Your task to perform on an android device: refresh tabs in the chrome app Image 0: 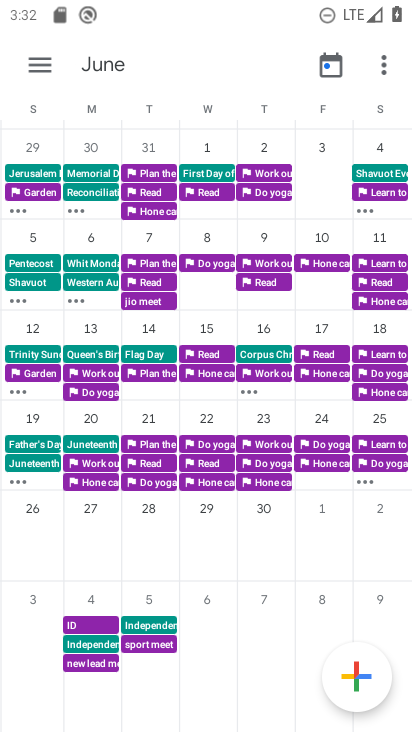
Step 0: press home button
Your task to perform on an android device: refresh tabs in the chrome app Image 1: 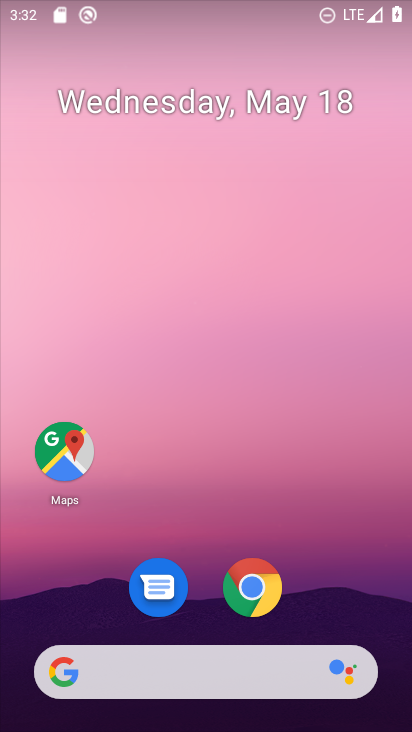
Step 1: click (253, 577)
Your task to perform on an android device: refresh tabs in the chrome app Image 2: 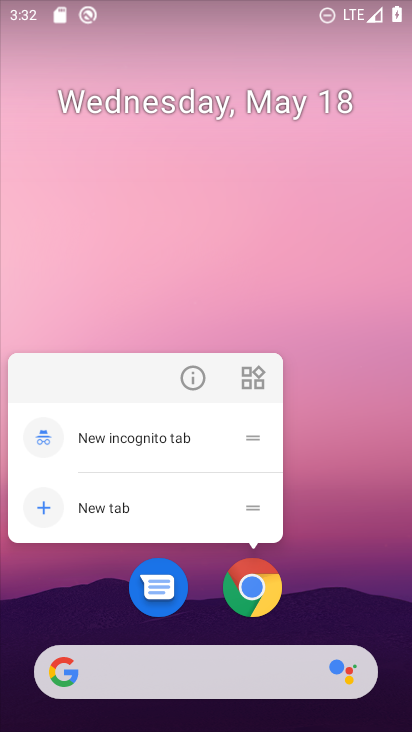
Step 2: click (253, 577)
Your task to perform on an android device: refresh tabs in the chrome app Image 3: 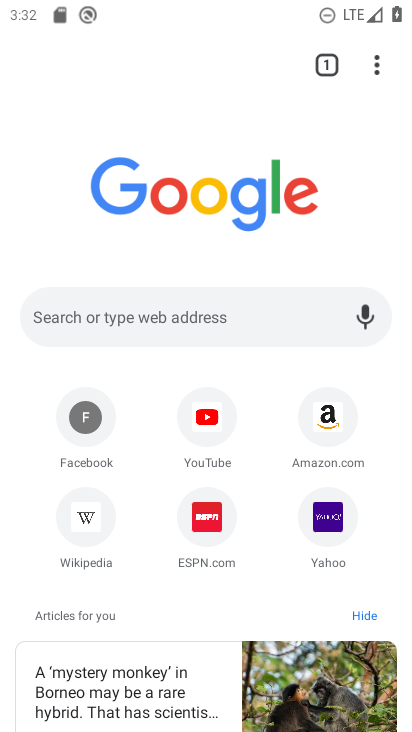
Step 3: click (382, 60)
Your task to perform on an android device: refresh tabs in the chrome app Image 4: 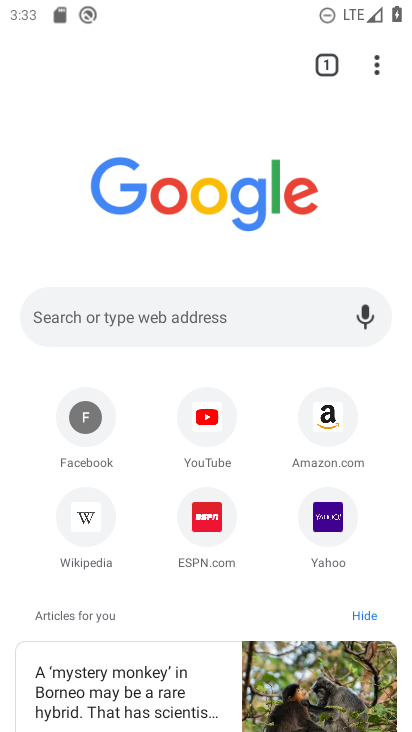
Step 4: task complete